Your task to perform on an android device: toggle pop-ups in chrome Image 0: 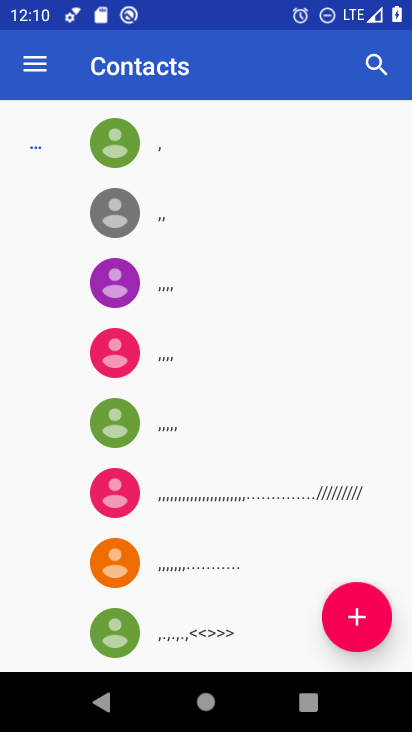
Step 0: press home button
Your task to perform on an android device: toggle pop-ups in chrome Image 1: 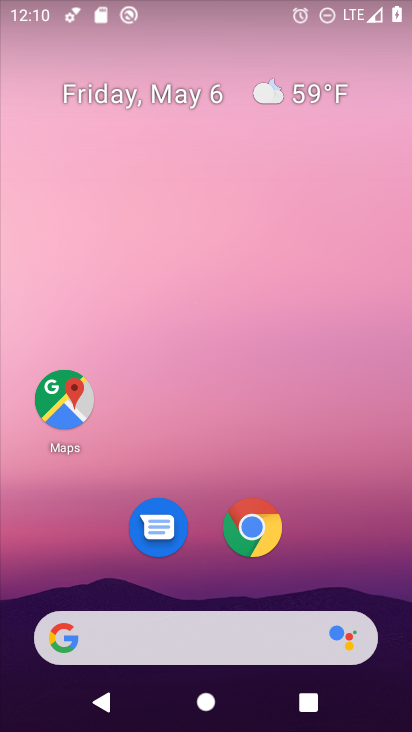
Step 1: drag from (276, 690) to (378, 52)
Your task to perform on an android device: toggle pop-ups in chrome Image 2: 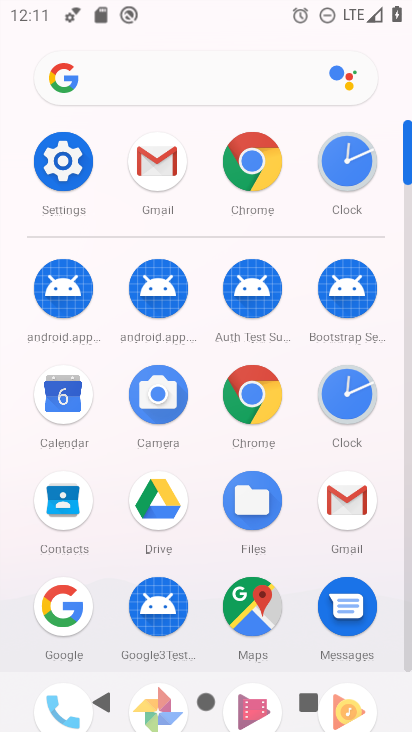
Step 2: click (261, 165)
Your task to perform on an android device: toggle pop-ups in chrome Image 3: 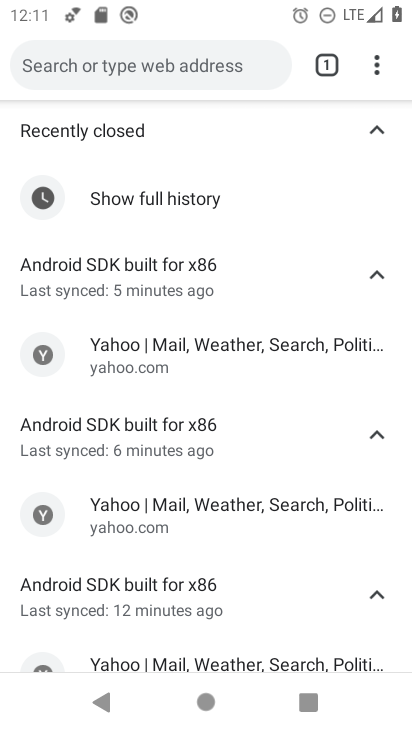
Step 3: click (370, 73)
Your task to perform on an android device: toggle pop-ups in chrome Image 4: 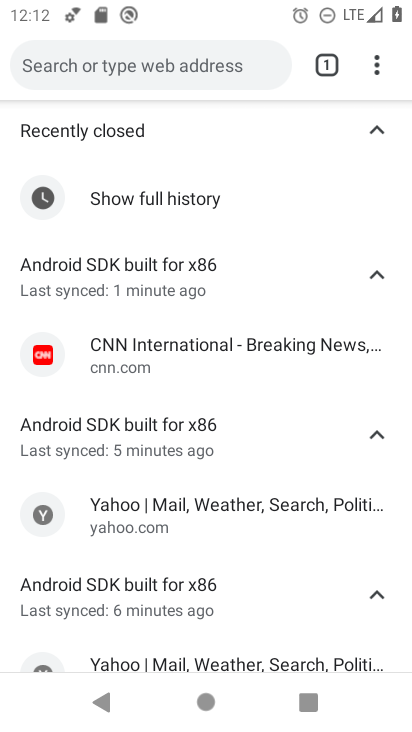
Step 4: drag from (372, 66) to (260, 580)
Your task to perform on an android device: toggle pop-ups in chrome Image 5: 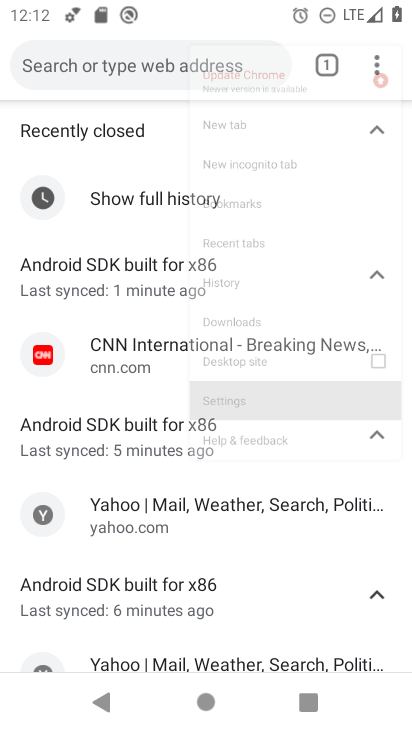
Step 5: click (260, 580)
Your task to perform on an android device: toggle pop-ups in chrome Image 6: 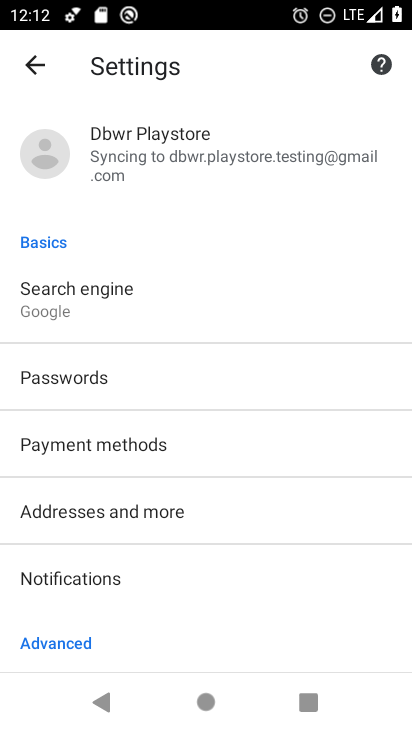
Step 6: drag from (310, 601) to (251, 134)
Your task to perform on an android device: toggle pop-ups in chrome Image 7: 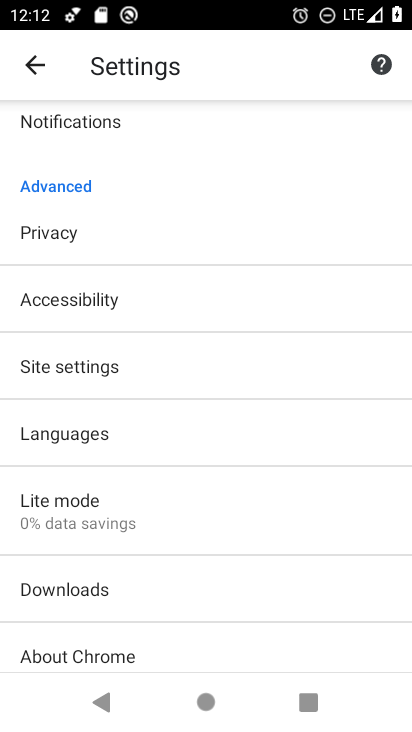
Step 7: drag from (321, 620) to (339, 147)
Your task to perform on an android device: toggle pop-ups in chrome Image 8: 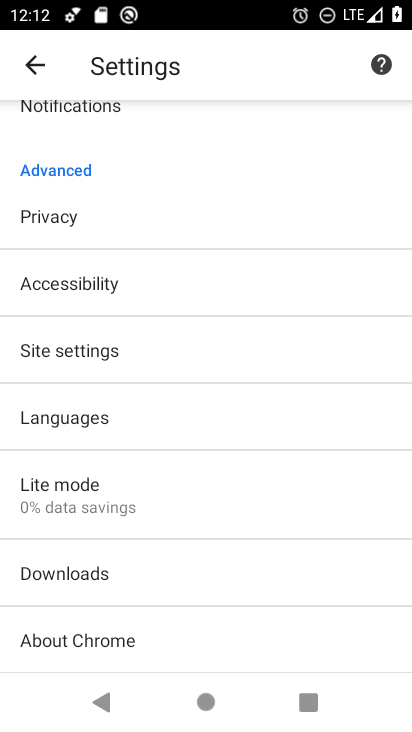
Step 8: click (114, 353)
Your task to perform on an android device: toggle pop-ups in chrome Image 9: 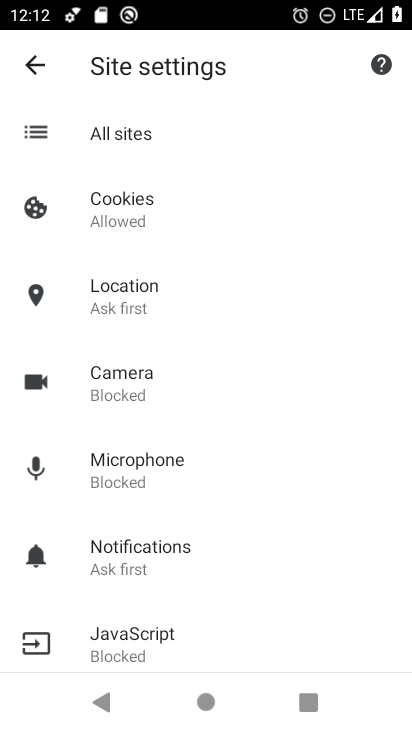
Step 9: drag from (224, 594) to (263, 136)
Your task to perform on an android device: toggle pop-ups in chrome Image 10: 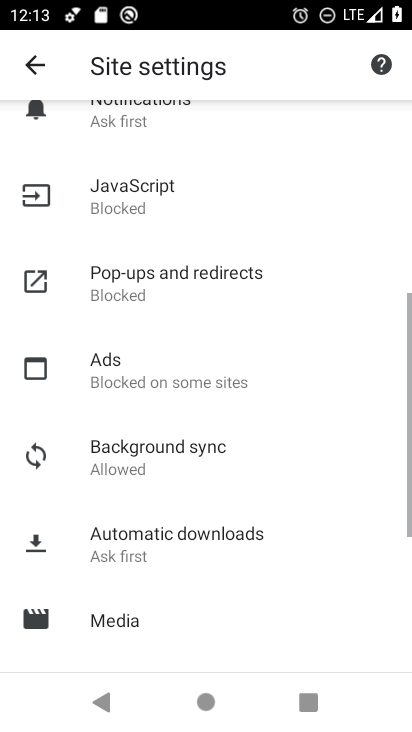
Step 10: click (180, 276)
Your task to perform on an android device: toggle pop-ups in chrome Image 11: 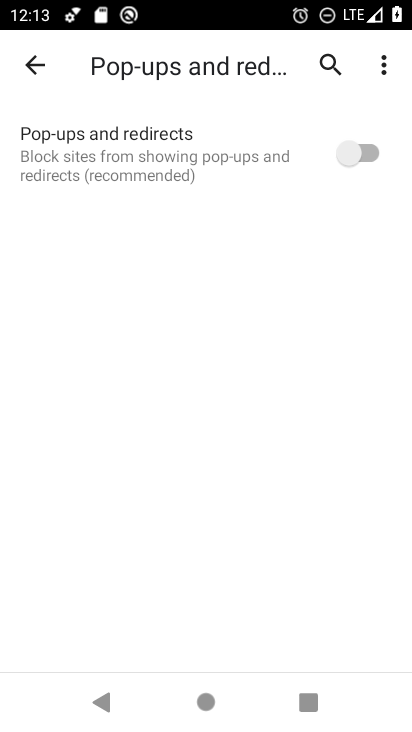
Step 11: click (365, 154)
Your task to perform on an android device: toggle pop-ups in chrome Image 12: 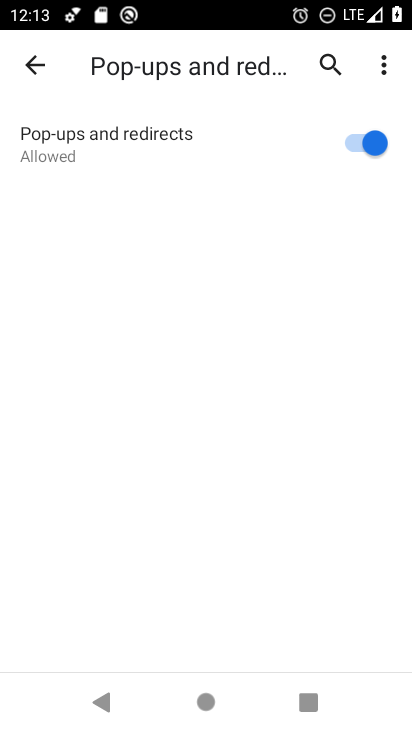
Step 12: task complete